Your task to perform on an android device: Open battery settings Image 0: 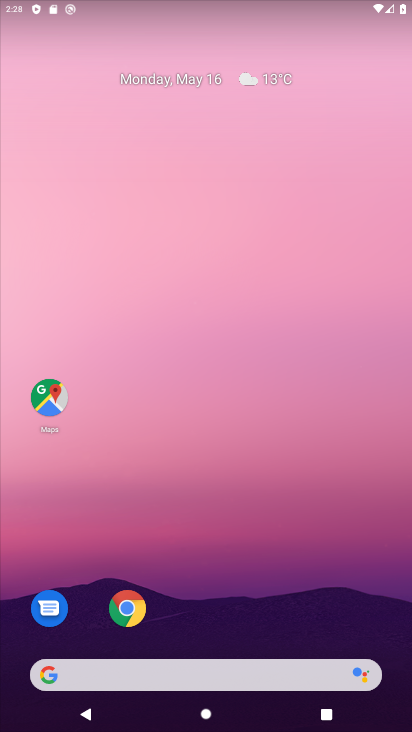
Step 0: drag from (221, 633) to (238, 60)
Your task to perform on an android device: Open battery settings Image 1: 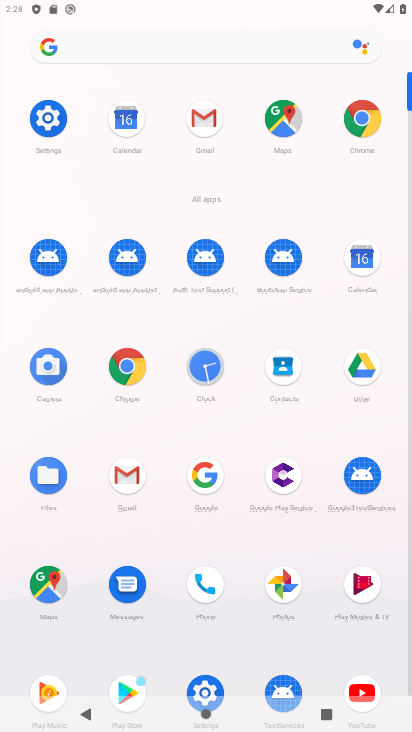
Step 1: click (45, 118)
Your task to perform on an android device: Open battery settings Image 2: 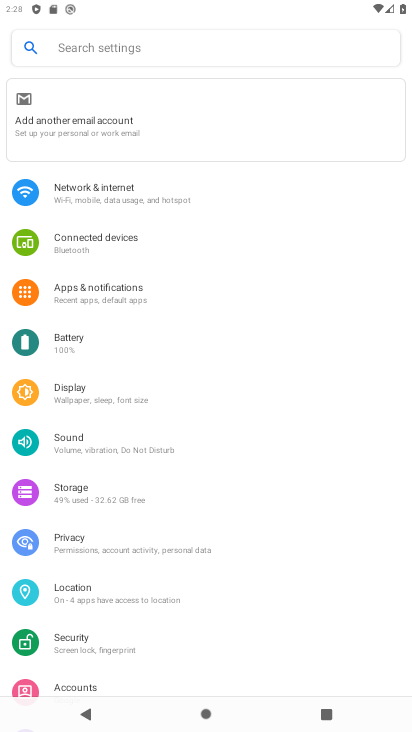
Step 2: click (72, 347)
Your task to perform on an android device: Open battery settings Image 3: 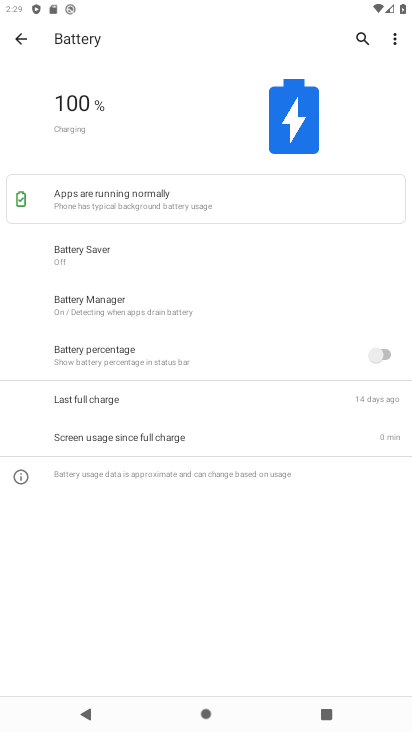
Step 3: task complete